Your task to perform on an android device: Show me productivity apps on the Play Store Image 0: 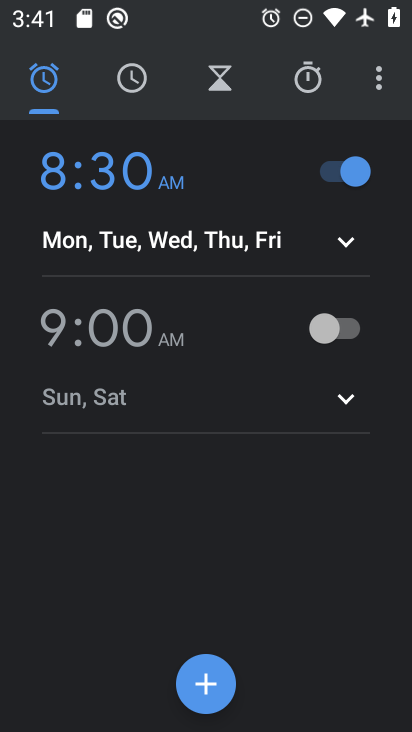
Step 0: press home button
Your task to perform on an android device: Show me productivity apps on the Play Store Image 1: 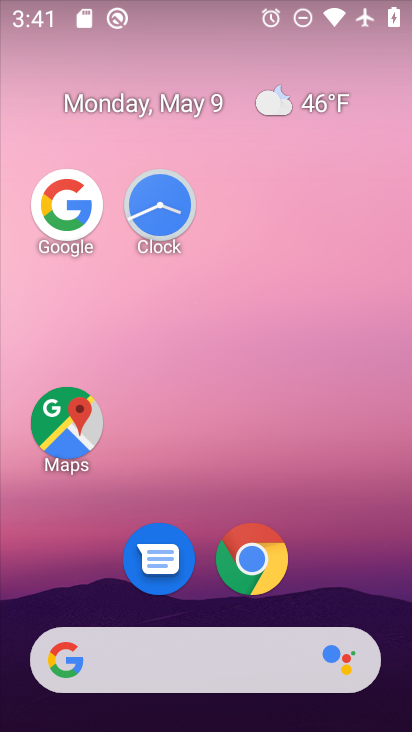
Step 1: drag from (306, 600) to (279, 121)
Your task to perform on an android device: Show me productivity apps on the Play Store Image 2: 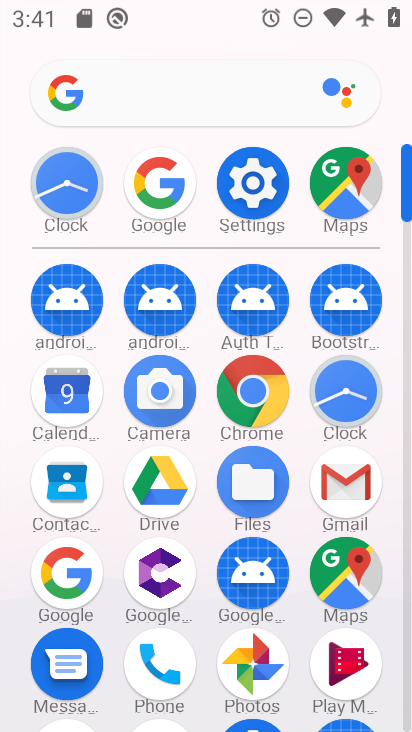
Step 2: drag from (128, 643) to (125, 247)
Your task to perform on an android device: Show me productivity apps on the Play Store Image 3: 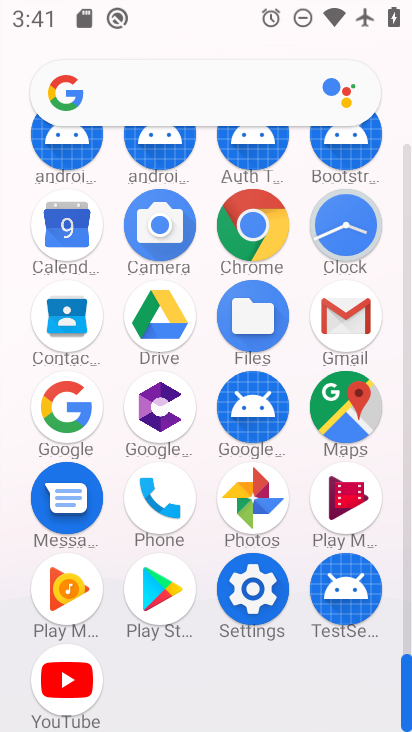
Step 3: click (164, 585)
Your task to perform on an android device: Show me productivity apps on the Play Store Image 4: 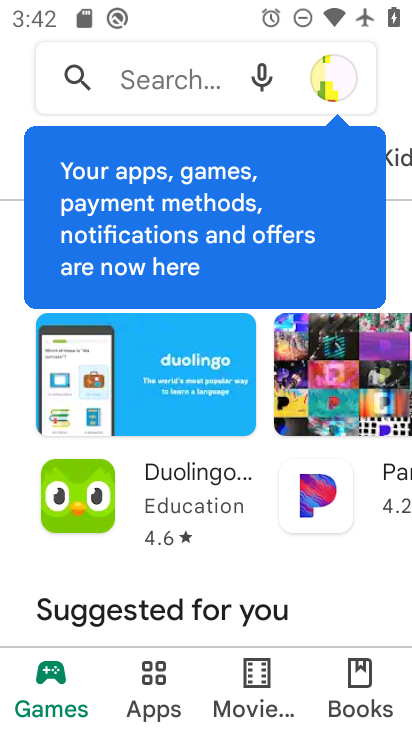
Step 4: click (156, 694)
Your task to perform on an android device: Show me productivity apps on the Play Store Image 5: 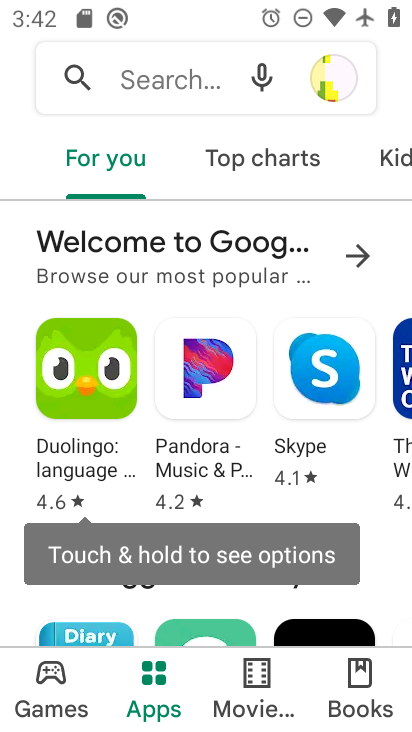
Step 5: drag from (342, 150) to (26, 143)
Your task to perform on an android device: Show me productivity apps on the Play Store Image 6: 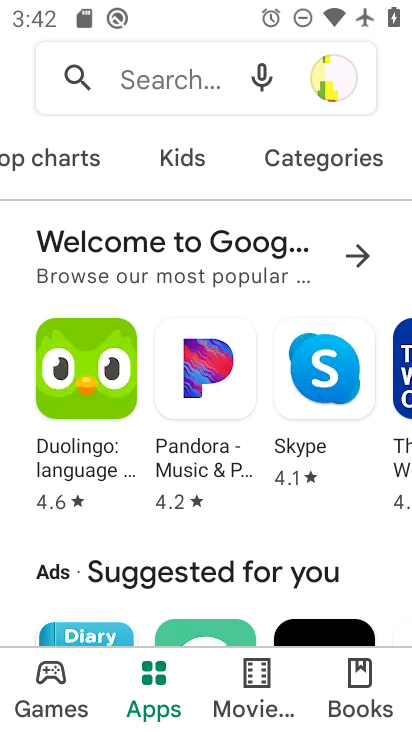
Step 6: click (302, 162)
Your task to perform on an android device: Show me productivity apps on the Play Store Image 7: 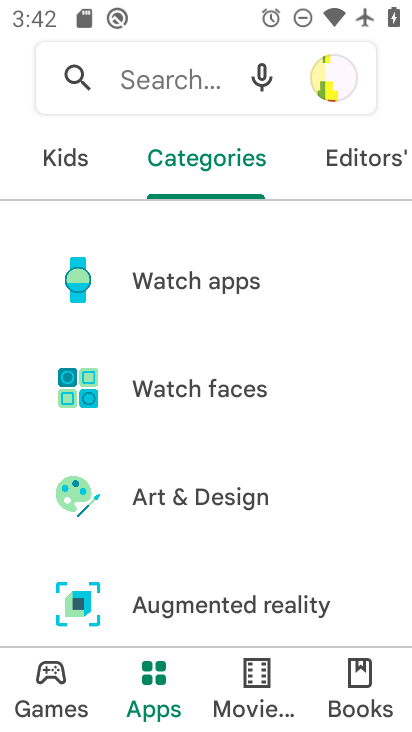
Step 7: drag from (314, 581) to (270, 145)
Your task to perform on an android device: Show me productivity apps on the Play Store Image 8: 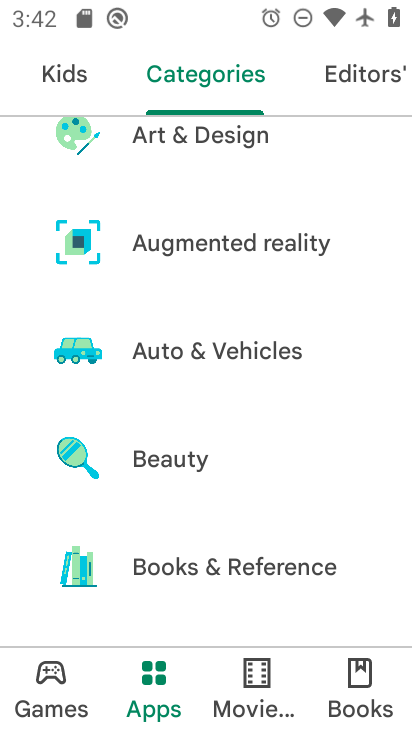
Step 8: drag from (279, 554) to (292, 170)
Your task to perform on an android device: Show me productivity apps on the Play Store Image 9: 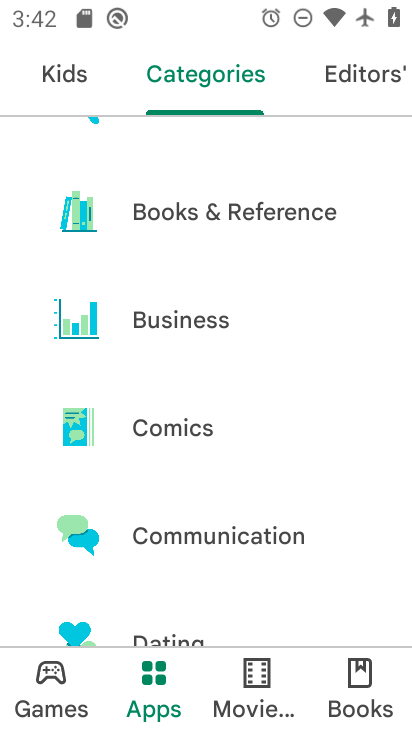
Step 9: drag from (311, 624) to (315, 228)
Your task to perform on an android device: Show me productivity apps on the Play Store Image 10: 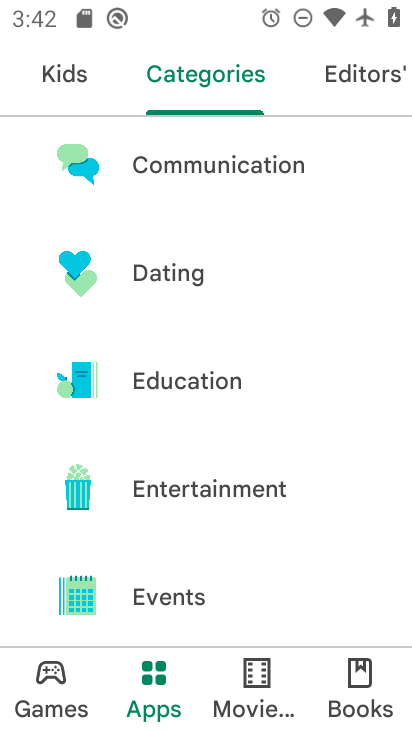
Step 10: drag from (329, 630) to (301, 256)
Your task to perform on an android device: Show me productivity apps on the Play Store Image 11: 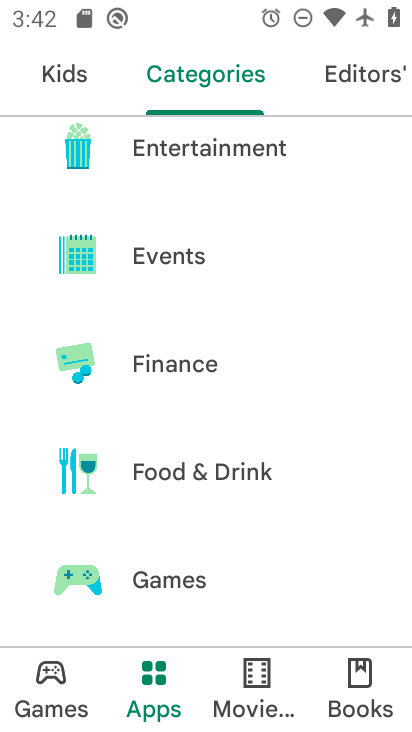
Step 11: drag from (256, 603) to (268, 202)
Your task to perform on an android device: Show me productivity apps on the Play Store Image 12: 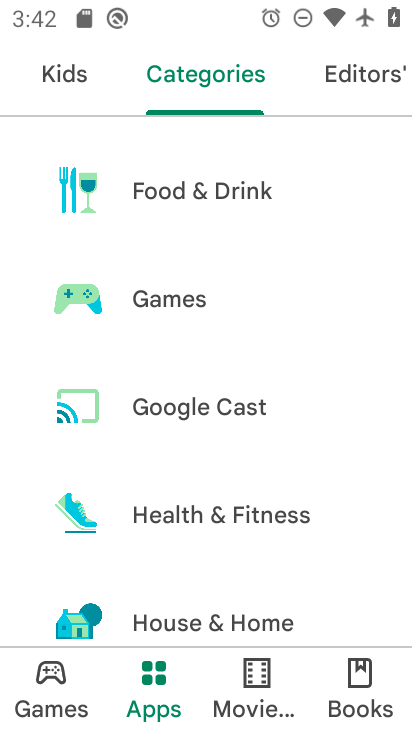
Step 12: drag from (268, 594) to (281, 249)
Your task to perform on an android device: Show me productivity apps on the Play Store Image 13: 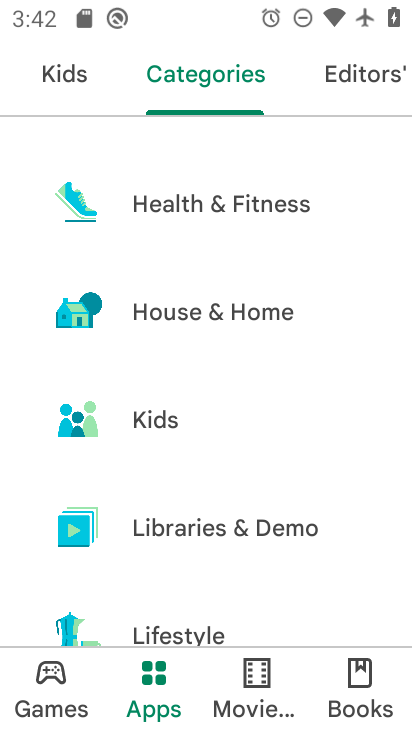
Step 13: drag from (314, 545) to (258, 16)
Your task to perform on an android device: Show me productivity apps on the Play Store Image 14: 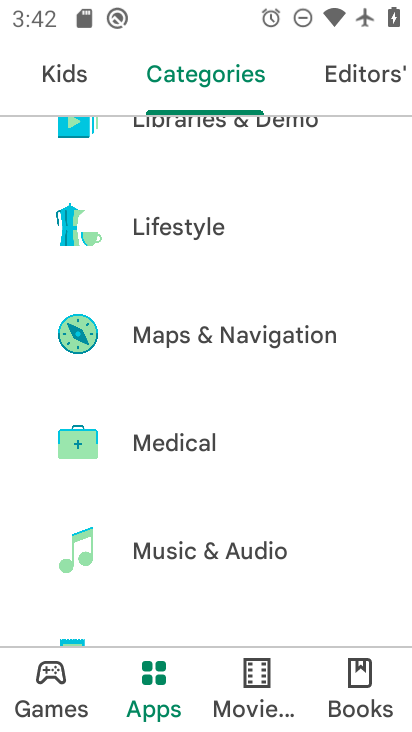
Step 14: drag from (310, 499) to (276, 190)
Your task to perform on an android device: Show me productivity apps on the Play Store Image 15: 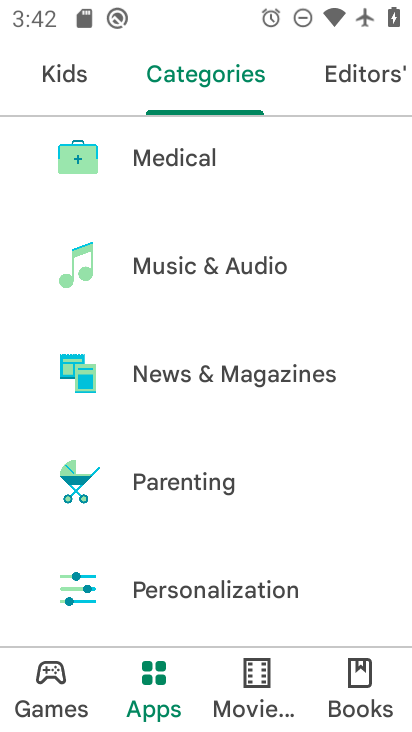
Step 15: drag from (295, 549) to (290, 198)
Your task to perform on an android device: Show me productivity apps on the Play Store Image 16: 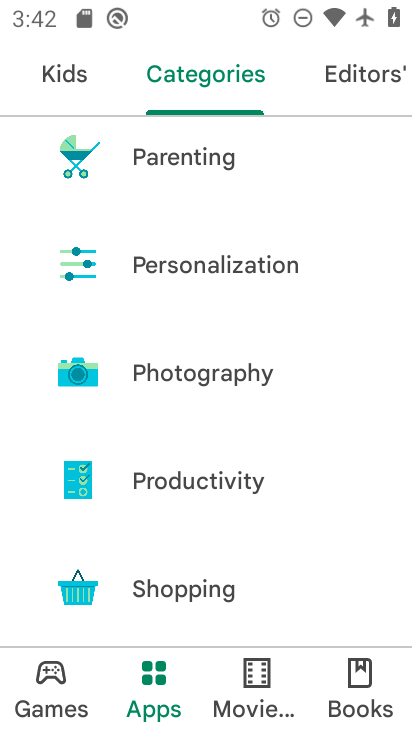
Step 16: click (257, 485)
Your task to perform on an android device: Show me productivity apps on the Play Store Image 17: 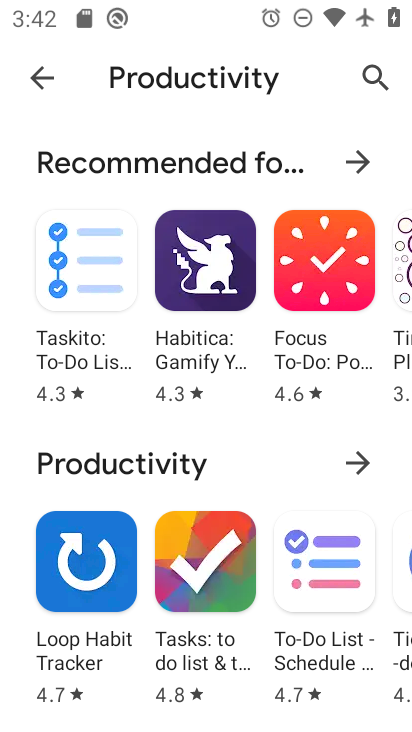
Step 17: task complete